Your task to perform on an android device: make emails show in primary in the gmail app Image 0: 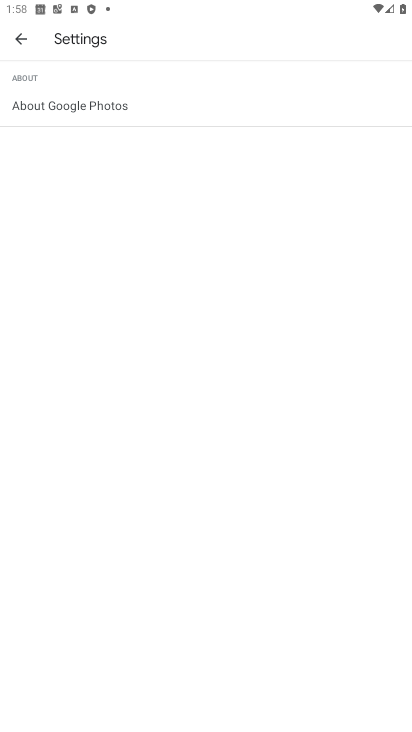
Step 0: press home button
Your task to perform on an android device: make emails show in primary in the gmail app Image 1: 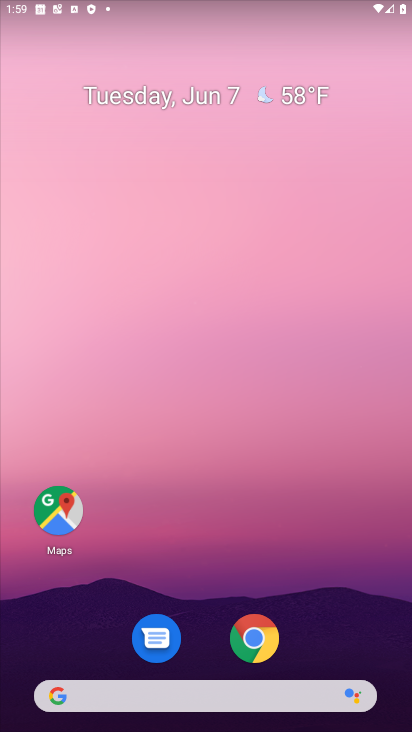
Step 1: drag from (221, 653) to (324, 265)
Your task to perform on an android device: make emails show in primary in the gmail app Image 2: 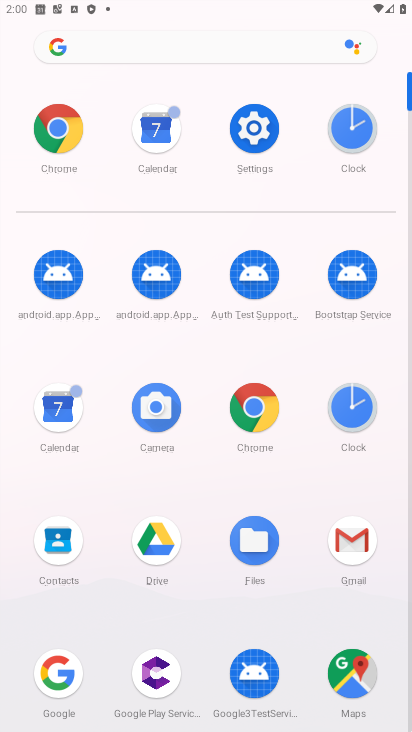
Step 2: click (341, 546)
Your task to perform on an android device: make emails show in primary in the gmail app Image 3: 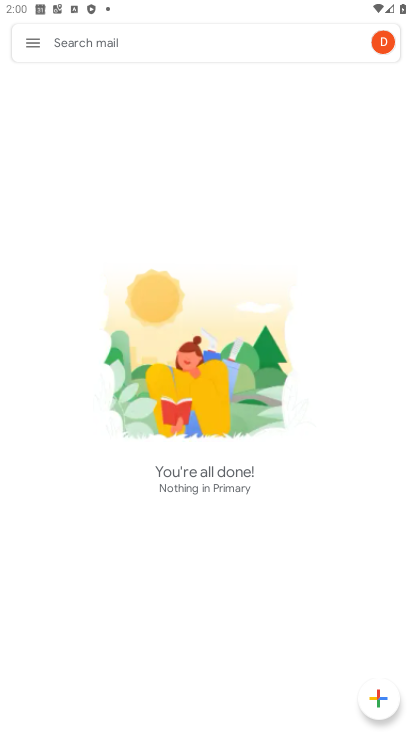
Step 3: click (42, 40)
Your task to perform on an android device: make emails show in primary in the gmail app Image 4: 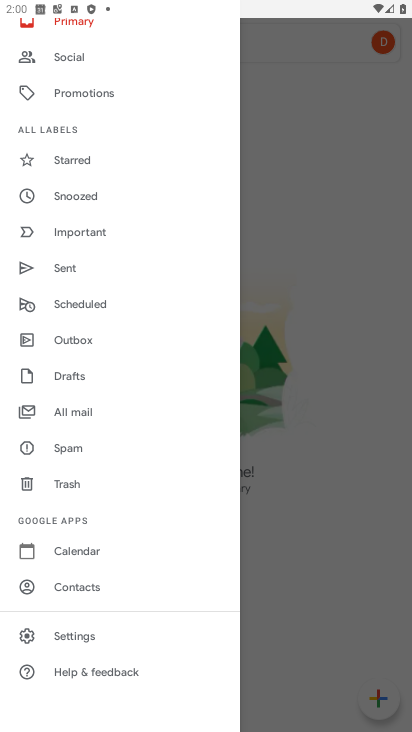
Step 4: click (97, 641)
Your task to perform on an android device: make emails show in primary in the gmail app Image 5: 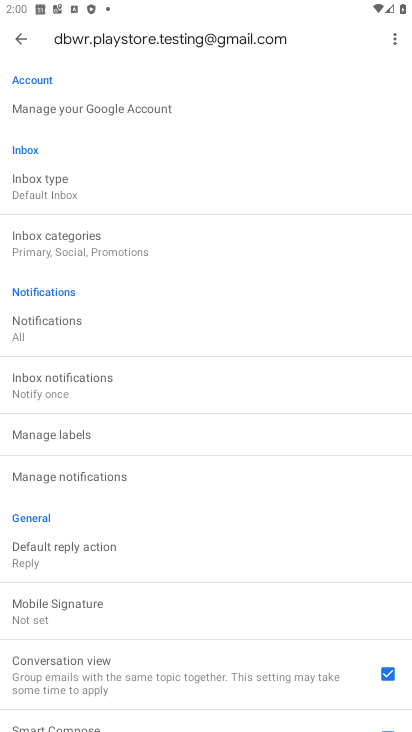
Step 5: click (79, 187)
Your task to perform on an android device: make emails show in primary in the gmail app Image 6: 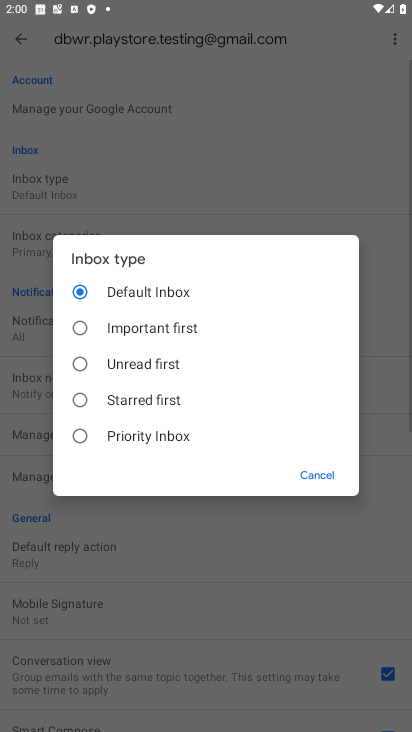
Step 6: click (103, 309)
Your task to perform on an android device: make emails show in primary in the gmail app Image 7: 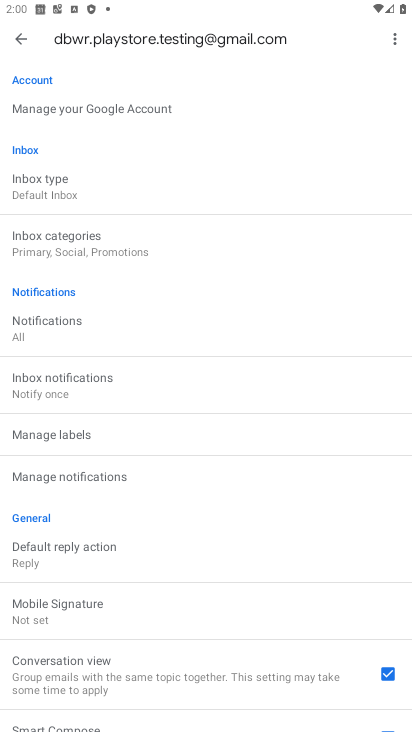
Step 7: click (34, 42)
Your task to perform on an android device: make emails show in primary in the gmail app Image 8: 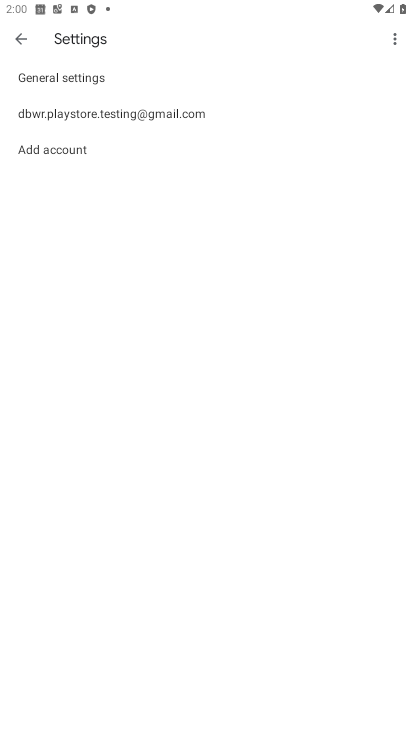
Step 8: click (22, 45)
Your task to perform on an android device: make emails show in primary in the gmail app Image 9: 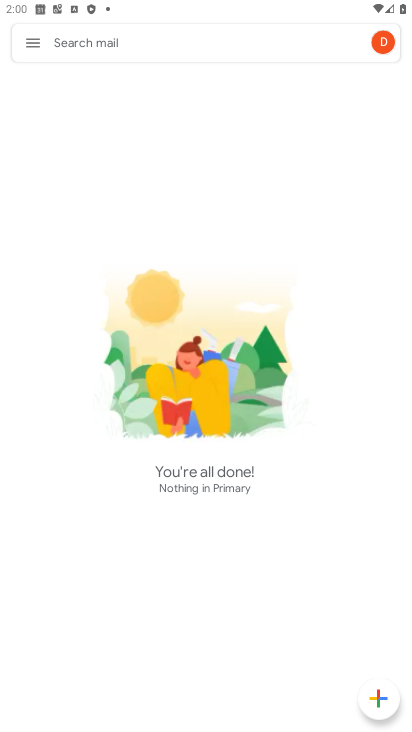
Step 9: click (32, 45)
Your task to perform on an android device: make emails show in primary in the gmail app Image 10: 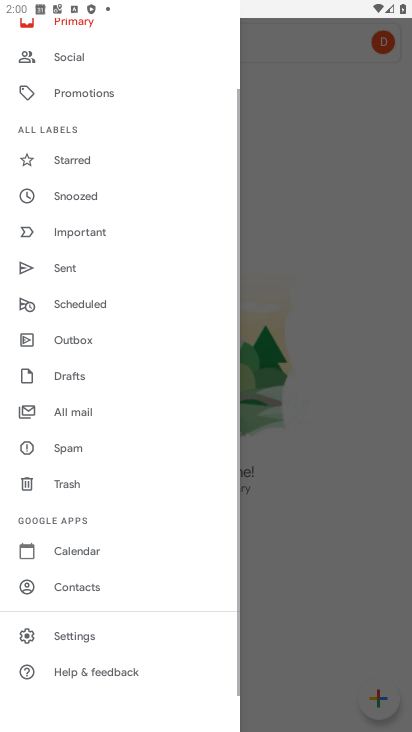
Step 10: drag from (102, 230) to (101, 657)
Your task to perform on an android device: make emails show in primary in the gmail app Image 11: 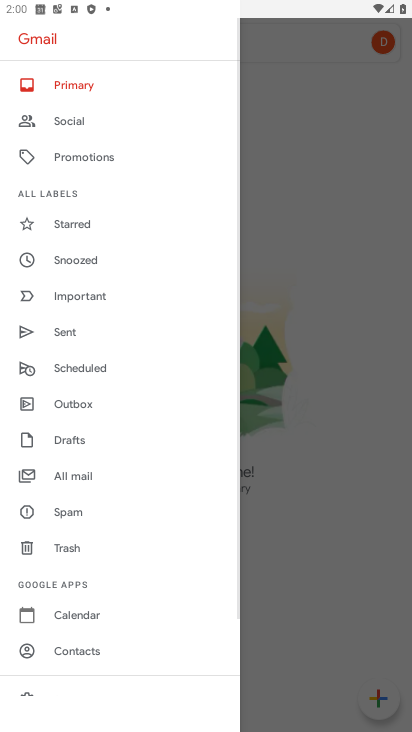
Step 11: click (67, 85)
Your task to perform on an android device: make emails show in primary in the gmail app Image 12: 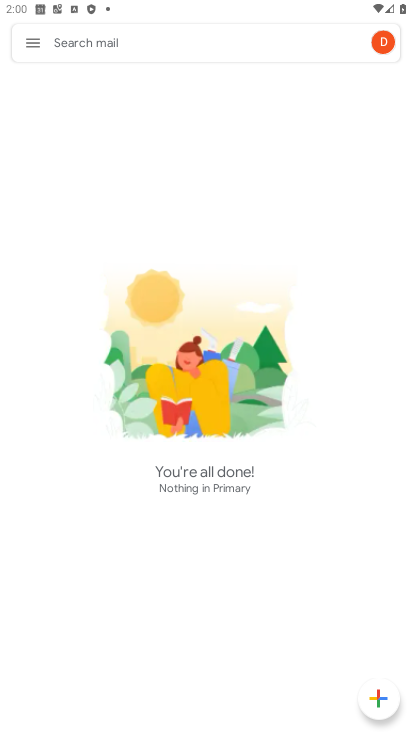
Step 12: task complete